Your task to perform on an android device: open a new tab in the chrome app Image 0: 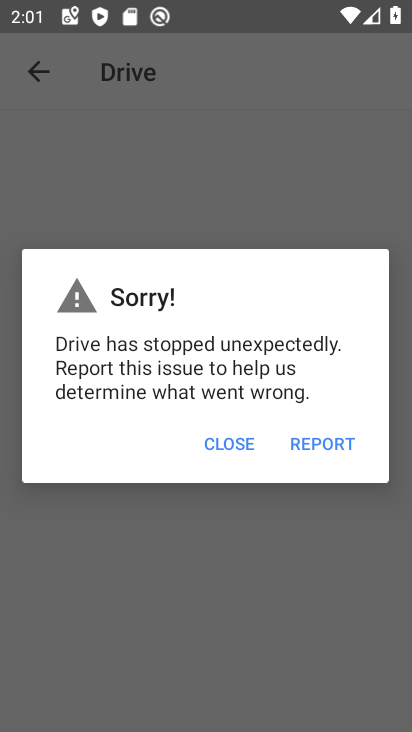
Step 0: press home button
Your task to perform on an android device: open a new tab in the chrome app Image 1: 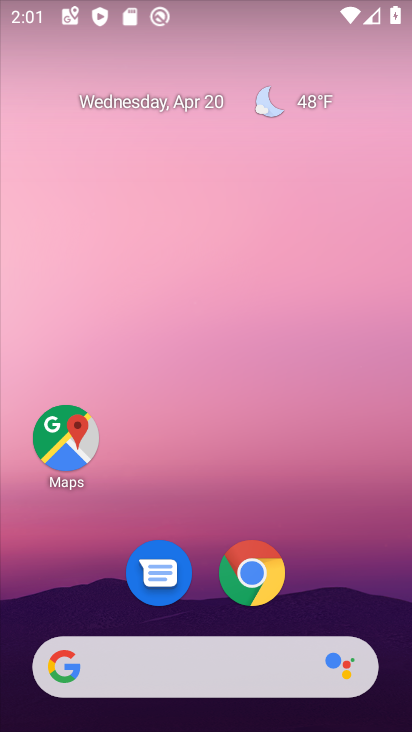
Step 1: drag from (166, 639) to (362, 164)
Your task to perform on an android device: open a new tab in the chrome app Image 2: 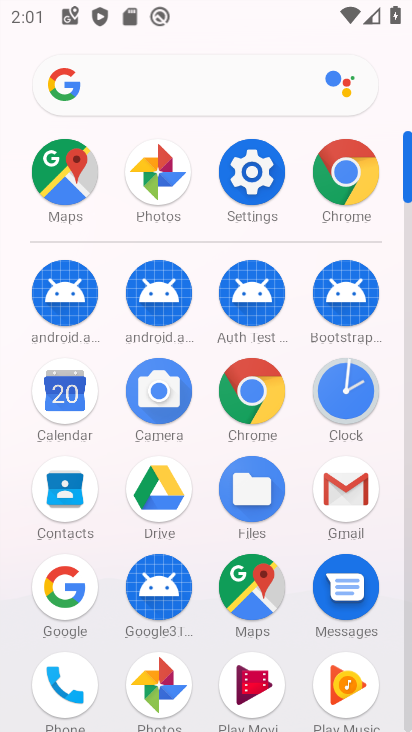
Step 2: click (353, 185)
Your task to perform on an android device: open a new tab in the chrome app Image 3: 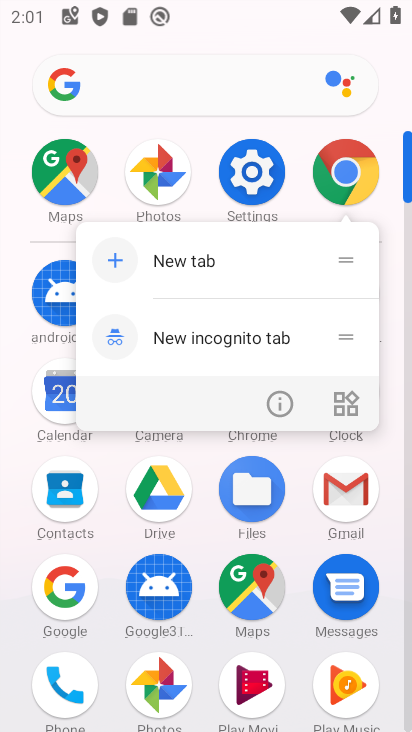
Step 3: click (341, 179)
Your task to perform on an android device: open a new tab in the chrome app Image 4: 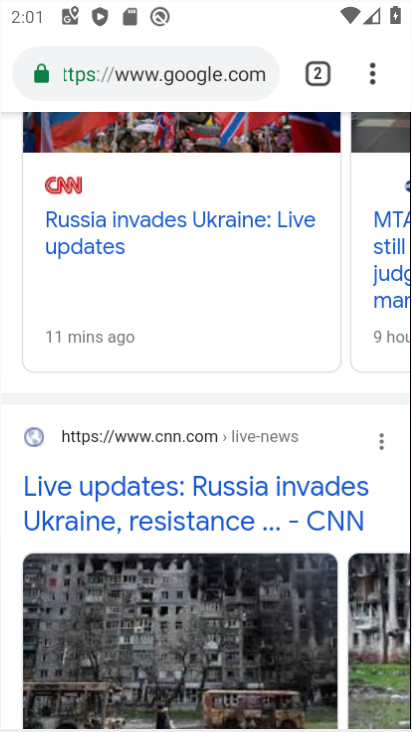
Step 4: click (356, 170)
Your task to perform on an android device: open a new tab in the chrome app Image 5: 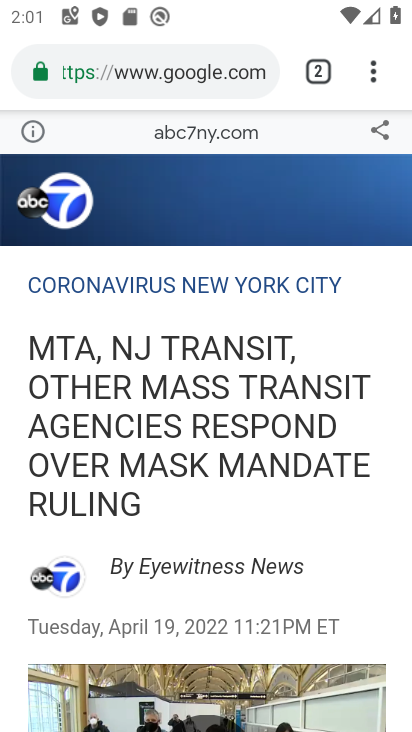
Step 5: click (370, 83)
Your task to perform on an android device: open a new tab in the chrome app Image 6: 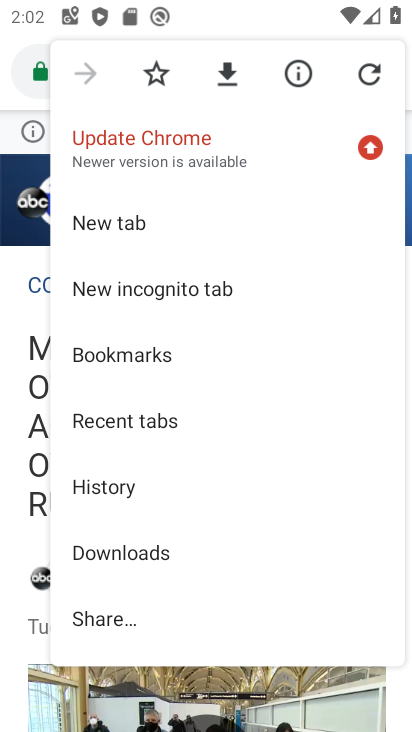
Step 6: click (127, 220)
Your task to perform on an android device: open a new tab in the chrome app Image 7: 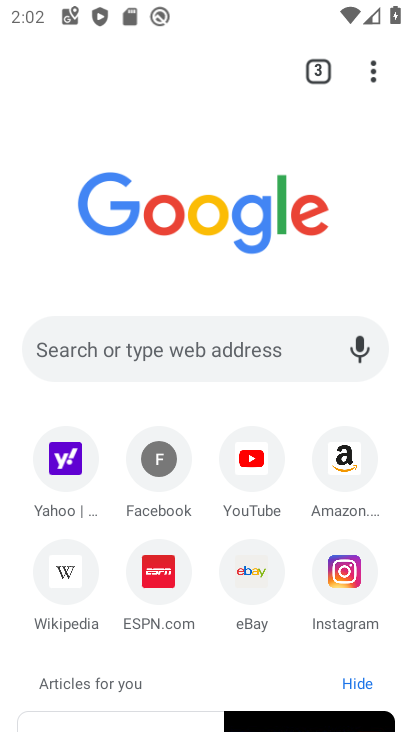
Step 7: task complete